Your task to perform on an android device: empty trash in the gmail app Image 0: 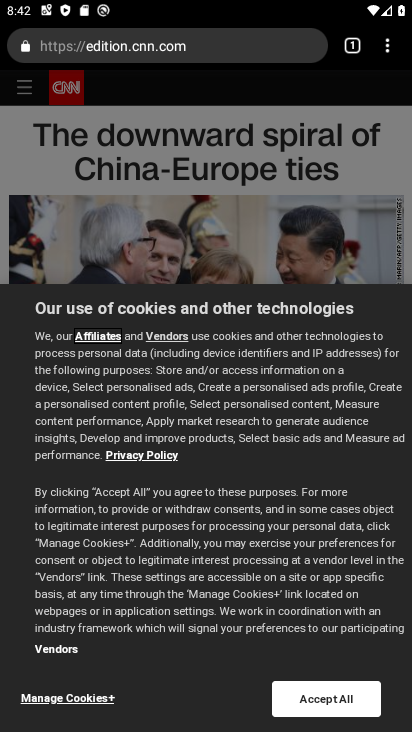
Step 0: press home button
Your task to perform on an android device: empty trash in the gmail app Image 1: 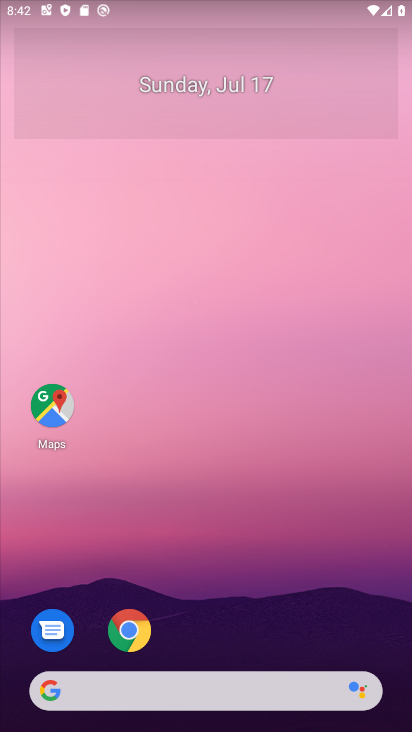
Step 1: drag from (202, 728) to (251, 31)
Your task to perform on an android device: empty trash in the gmail app Image 2: 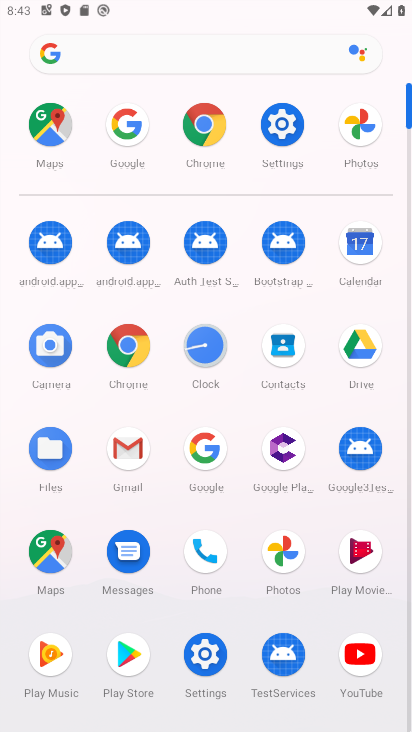
Step 2: click (114, 444)
Your task to perform on an android device: empty trash in the gmail app Image 3: 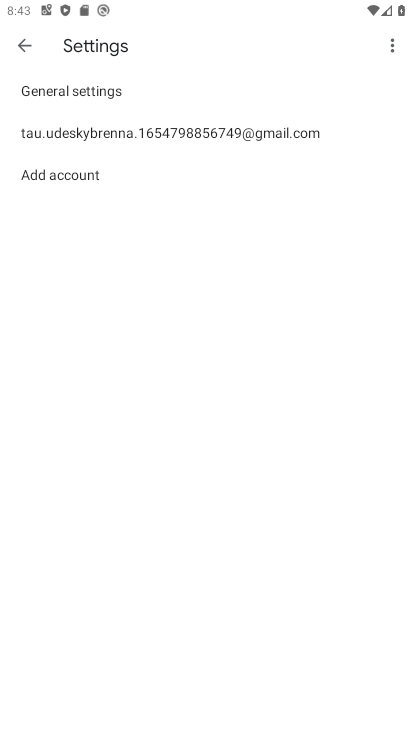
Step 3: click (25, 44)
Your task to perform on an android device: empty trash in the gmail app Image 4: 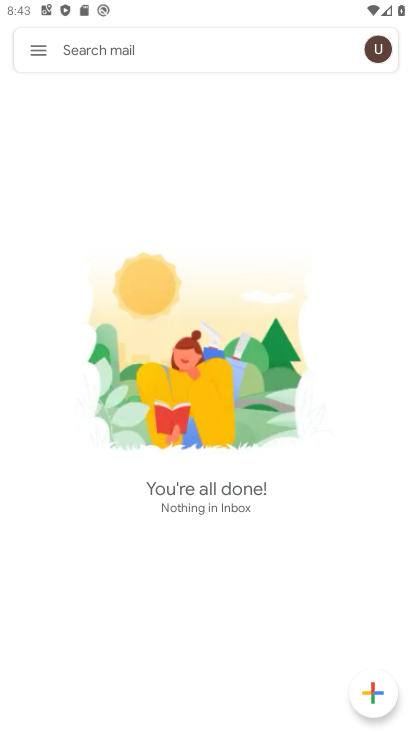
Step 4: click (25, 44)
Your task to perform on an android device: empty trash in the gmail app Image 5: 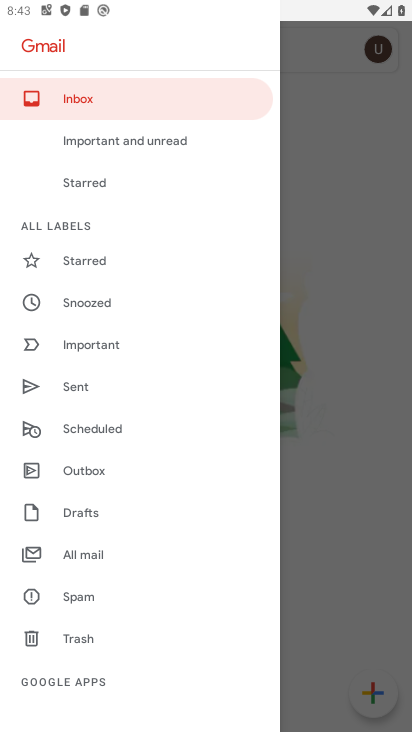
Step 5: click (84, 630)
Your task to perform on an android device: empty trash in the gmail app Image 6: 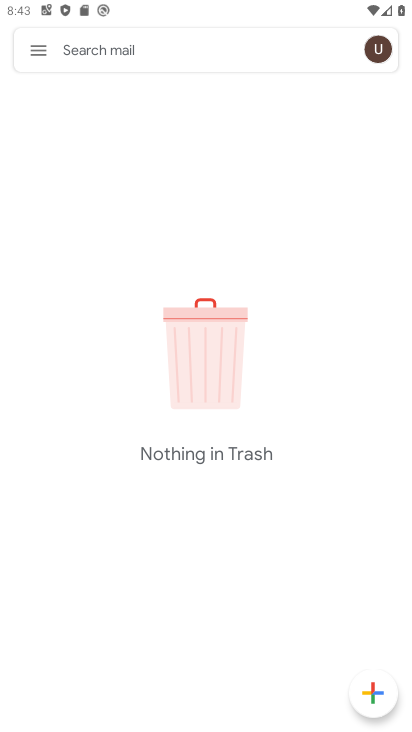
Step 6: task complete